Your task to perform on an android device: open app "Speedtest by Ookla" Image 0: 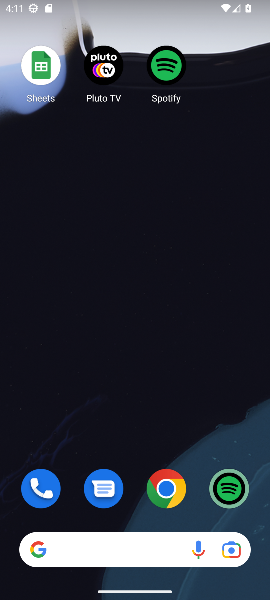
Step 0: drag from (136, 518) to (183, 148)
Your task to perform on an android device: open app "Speedtest by Ookla" Image 1: 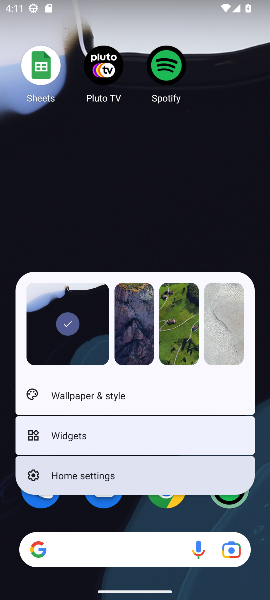
Step 1: click (138, 175)
Your task to perform on an android device: open app "Speedtest by Ookla" Image 2: 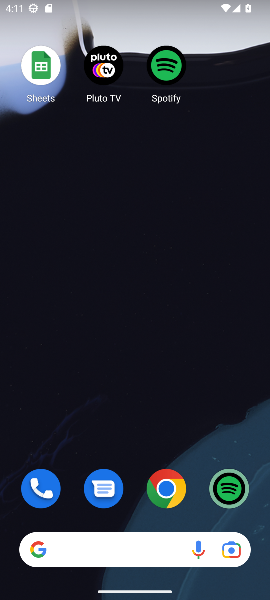
Step 2: drag from (137, 518) to (123, 114)
Your task to perform on an android device: open app "Speedtest by Ookla" Image 3: 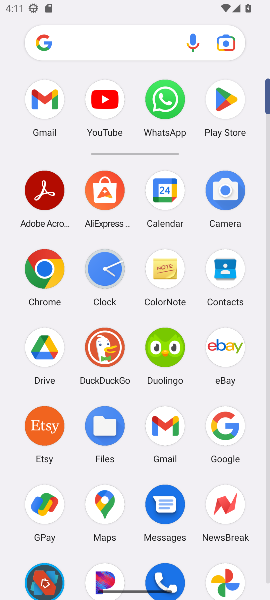
Step 3: click (239, 107)
Your task to perform on an android device: open app "Speedtest by Ookla" Image 4: 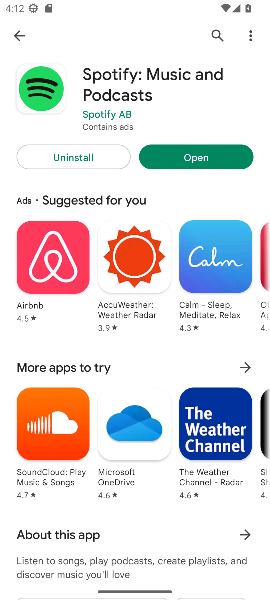
Step 4: click (205, 39)
Your task to perform on an android device: open app "Speedtest by Ookla" Image 5: 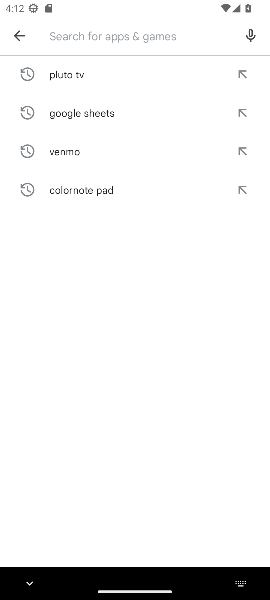
Step 5: type "speedtest ookla"
Your task to perform on an android device: open app "Speedtest by Ookla" Image 6: 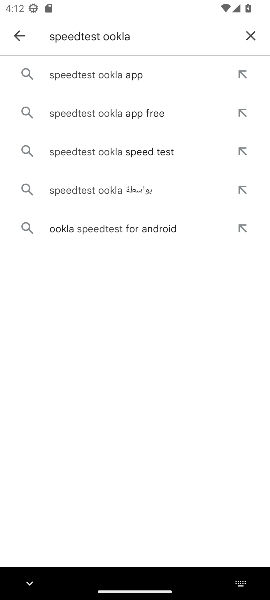
Step 6: click (81, 74)
Your task to perform on an android device: open app "Speedtest by Ookla" Image 7: 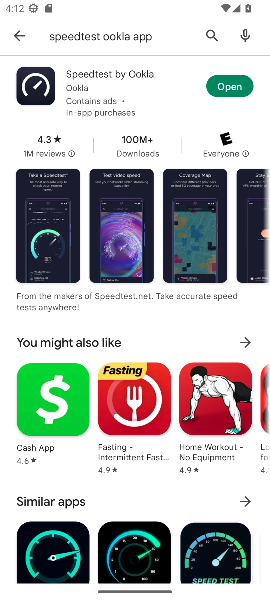
Step 7: click (216, 87)
Your task to perform on an android device: open app "Speedtest by Ookla" Image 8: 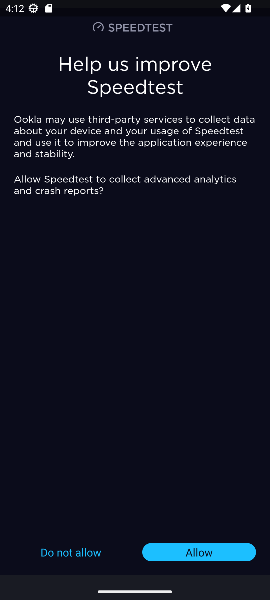
Step 8: click (173, 550)
Your task to perform on an android device: open app "Speedtest by Ookla" Image 9: 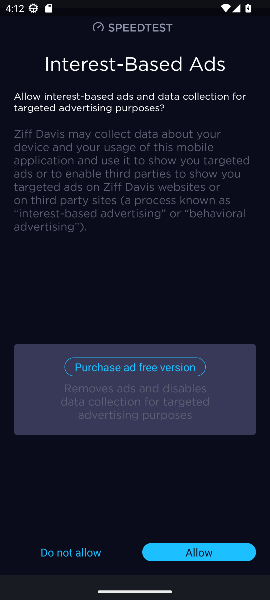
Step 9: click (173, 550)
Your task to perform on an android device: open app "Speedtest by Ookla" Image 10: 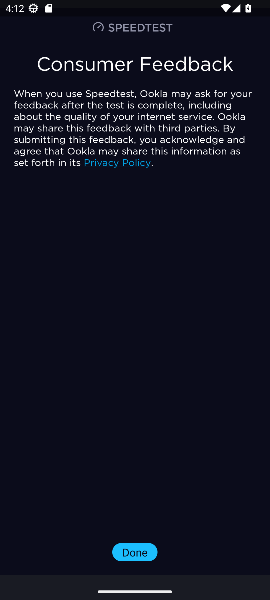
Step 10: task complete